Your task to perform on an android device: clear history in the chrome app Image 0: 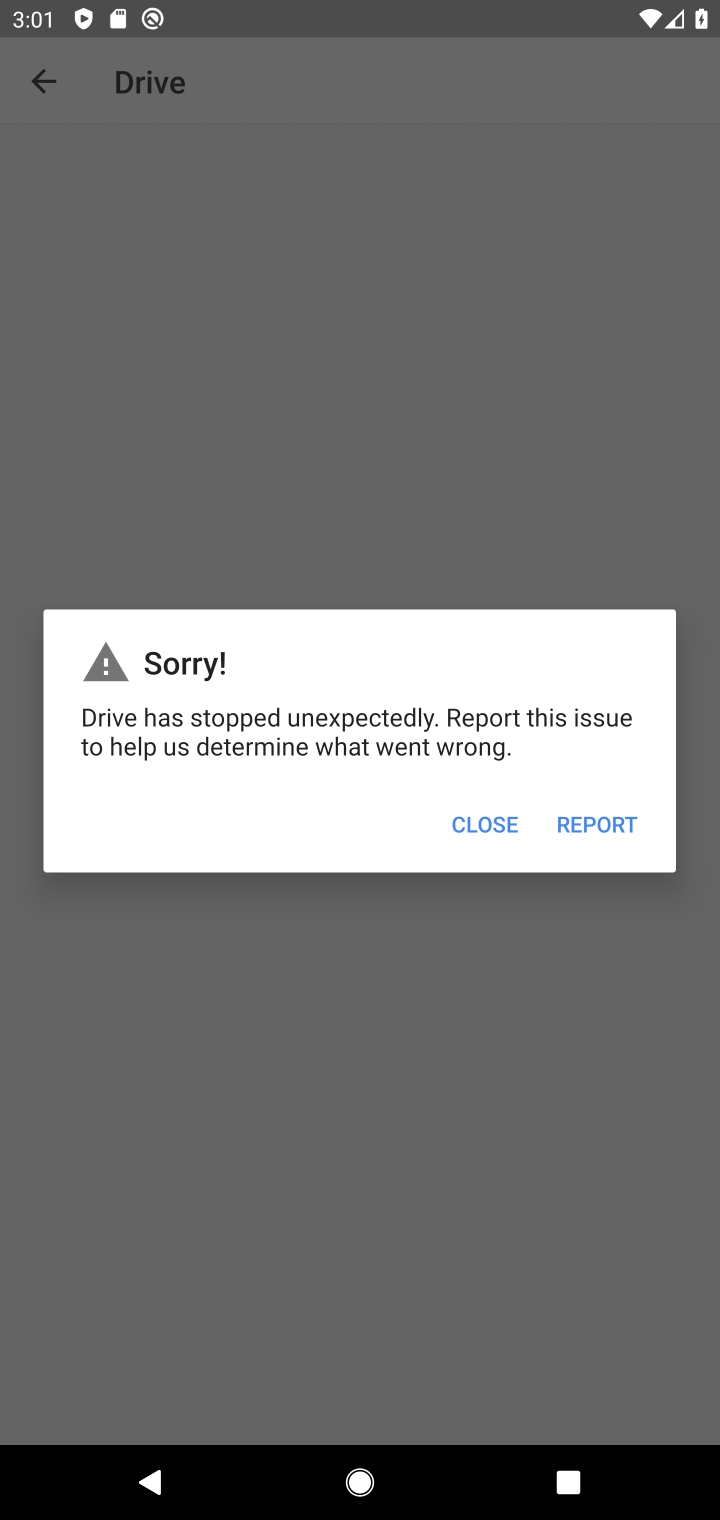
Step 0: click (497, 833)
Your task to perform on an android device: clear history in the chrome app Image 1: 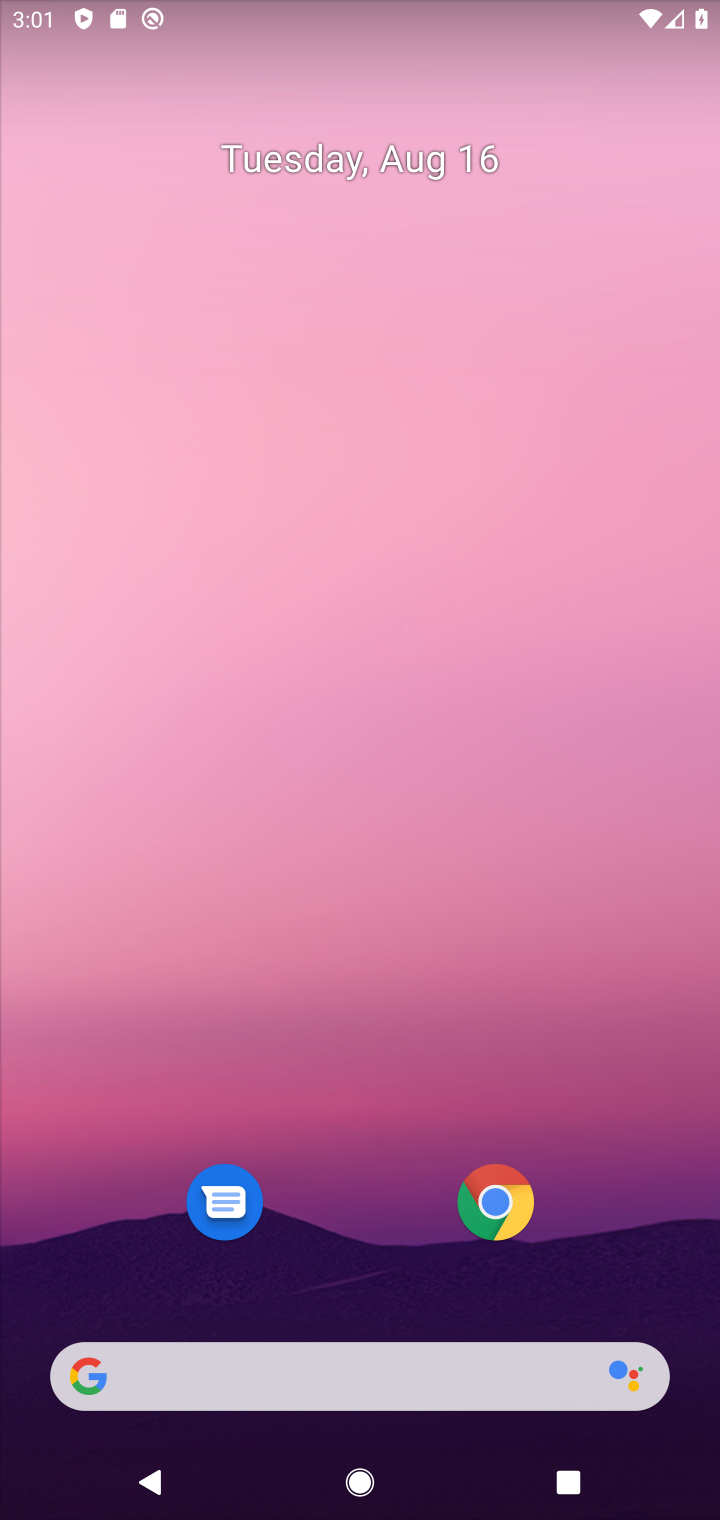
Step 1: drag from (377, 1148) to (366, 110)
Your task to perform on an android device: clear history in the chrome app Image 2: 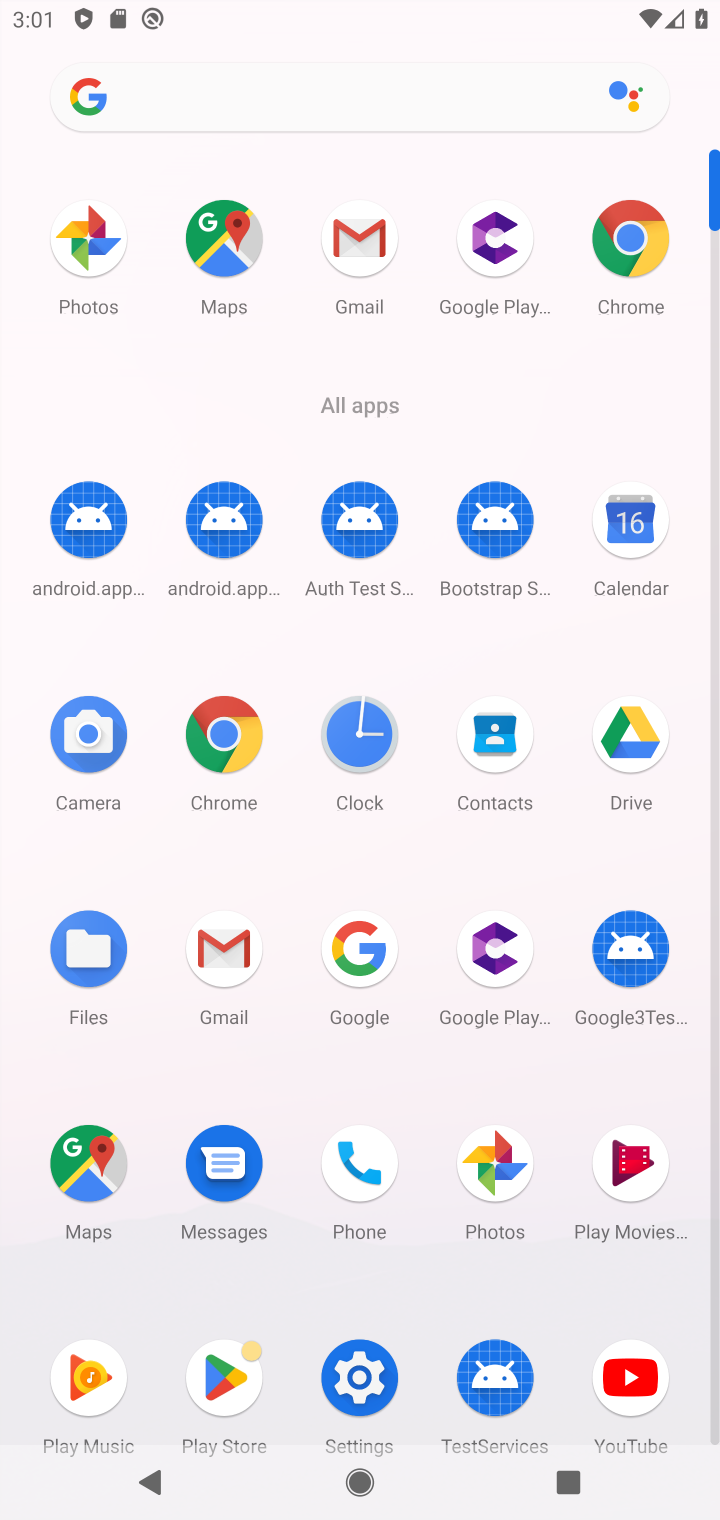
Step 2: click (235, 743)
Your task to perform on an android device: clear history in the chrome app Image 3: 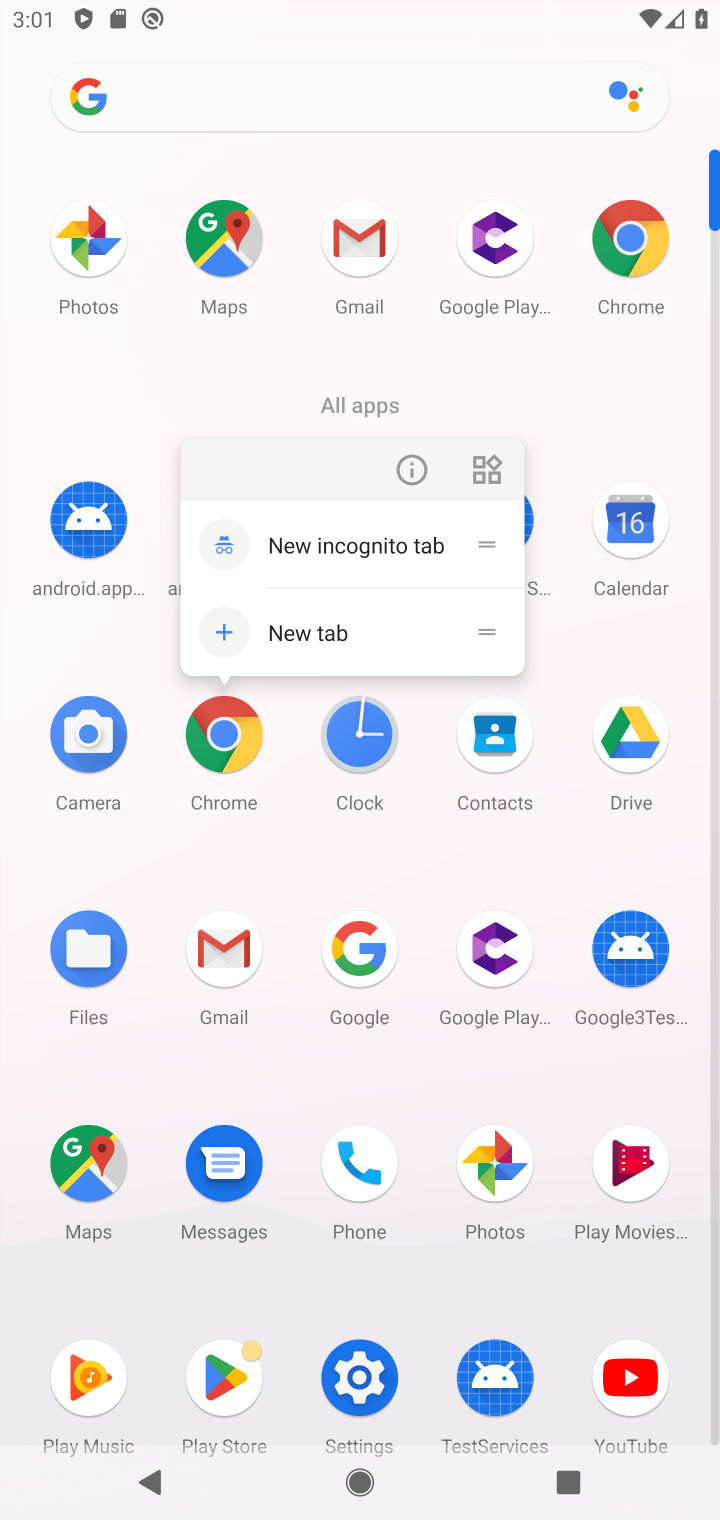
Step 3: click (224, 733)
Your task to perform on an android device: clear history in the chrome app Image 4: 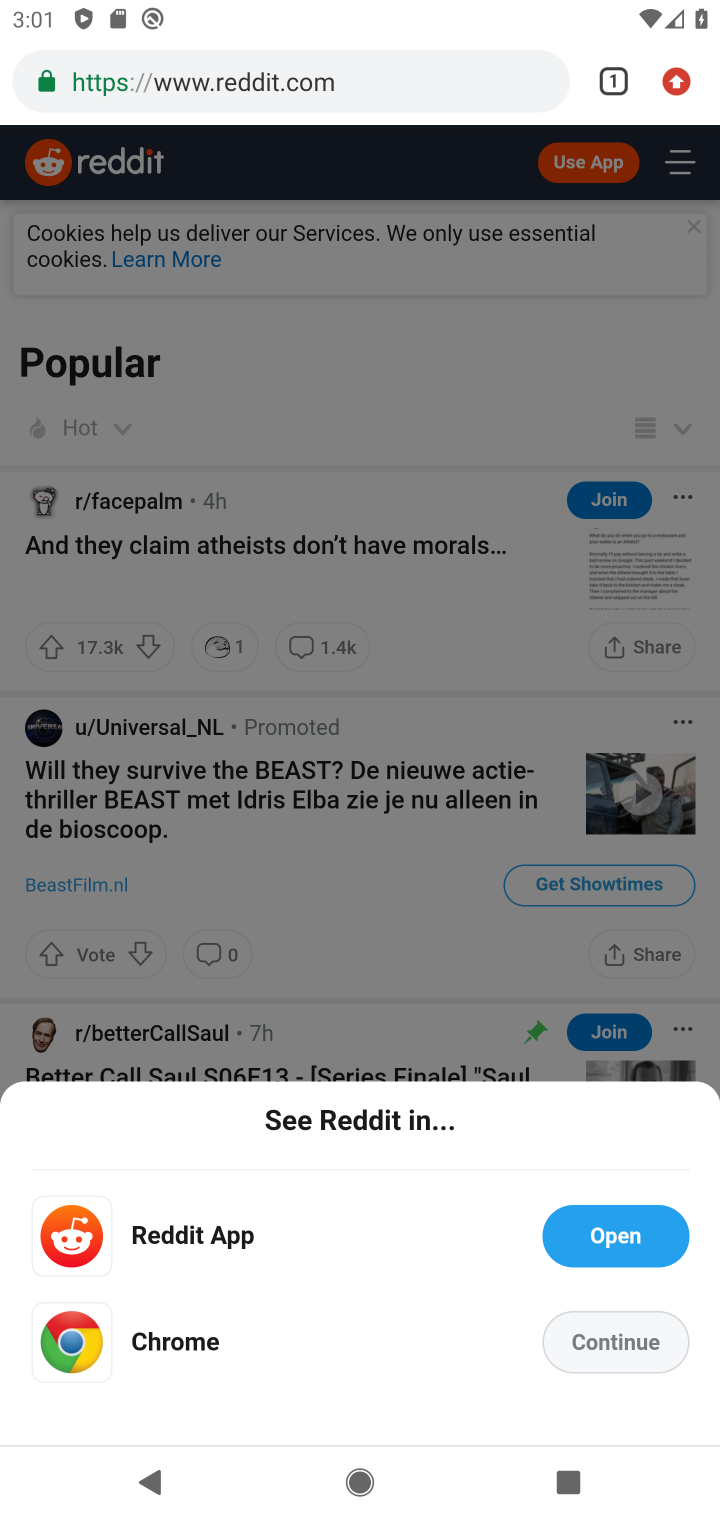
Step 4: click (582, 1334)
Your task to perform on an android device: clear history in the chrome app Image 5: 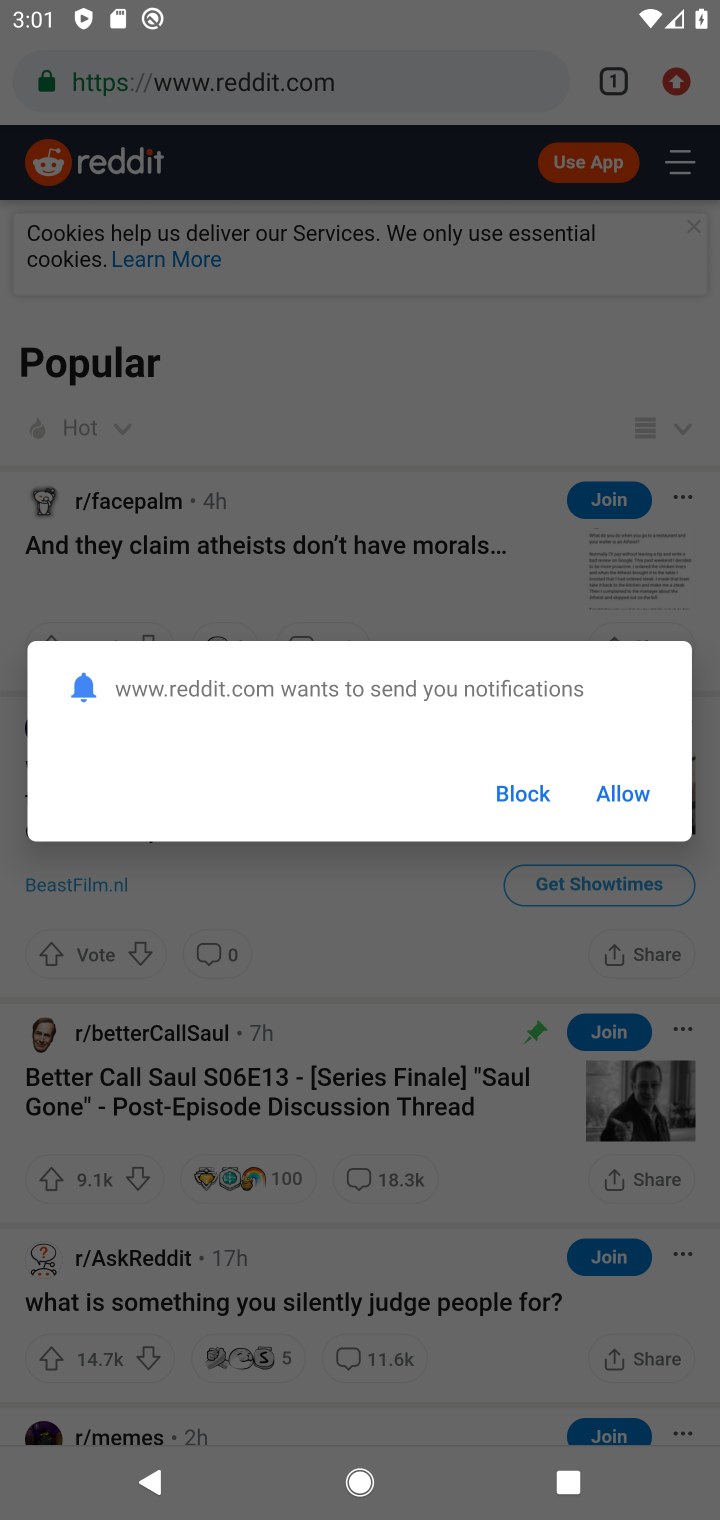
Step 5: click (519, 793)
Your task to perform on an android device: clear history in the chrome app Image 6: 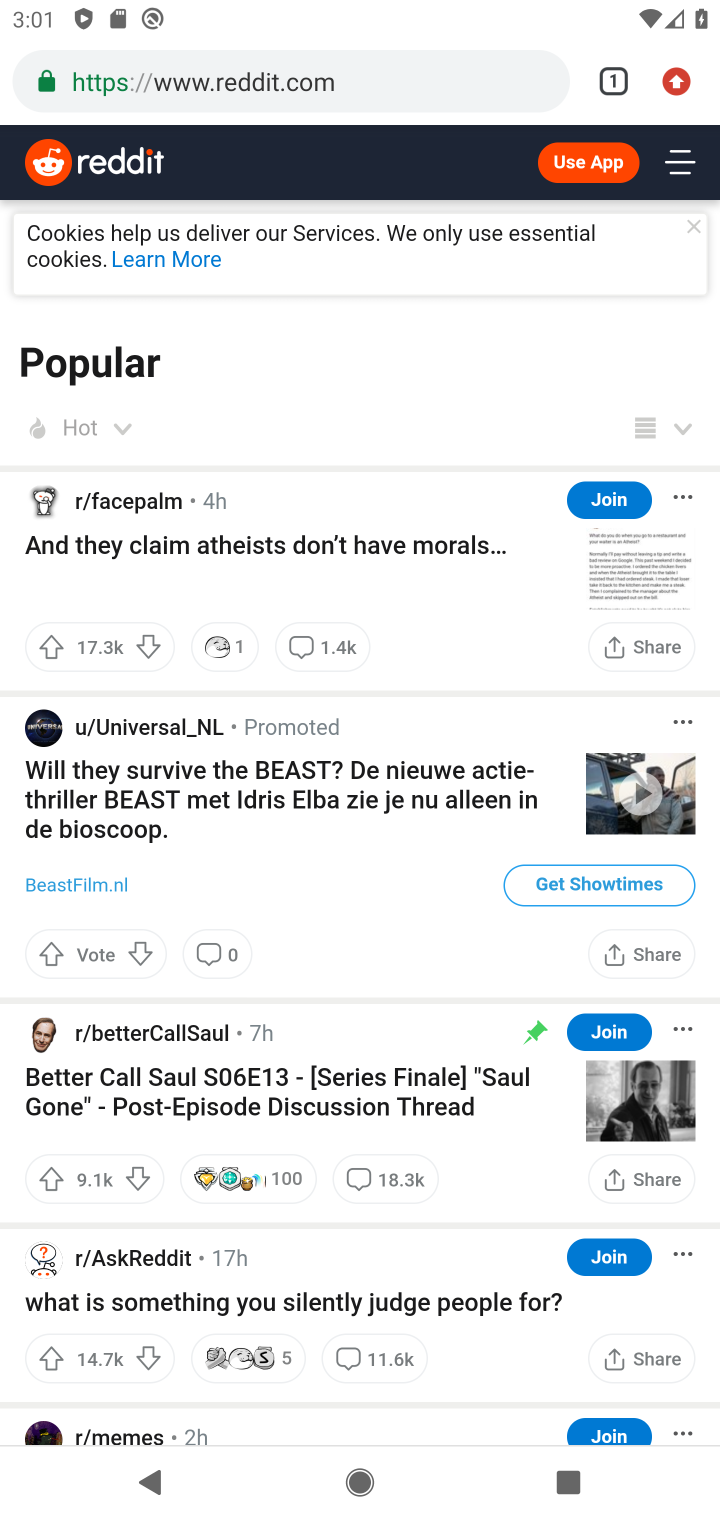
Step 6: click (689, 81)
Your task to perform on an android device: clear history in the chrome app Image 7: 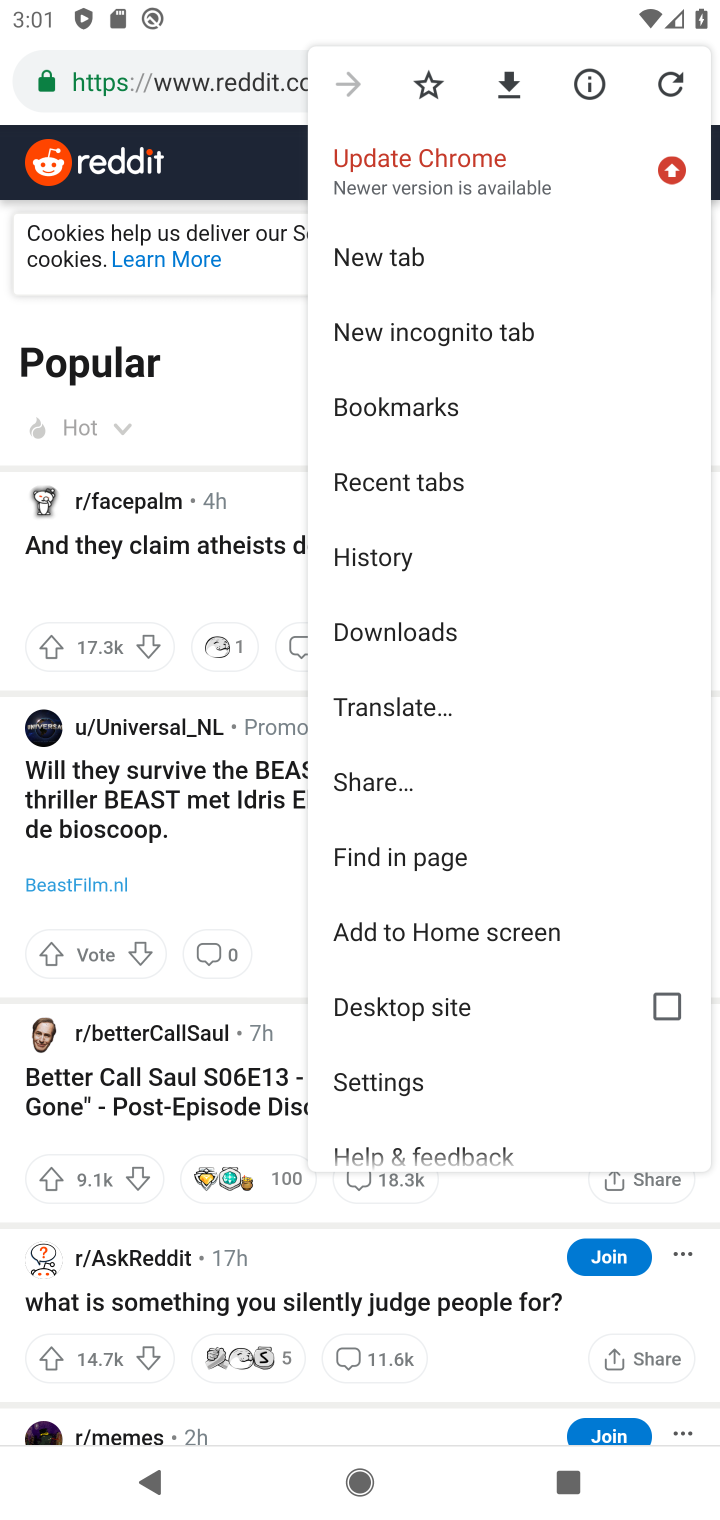
Step 7: click (446, 556)
Your task to perform on an android device: clear history in the chrome app Image 8: 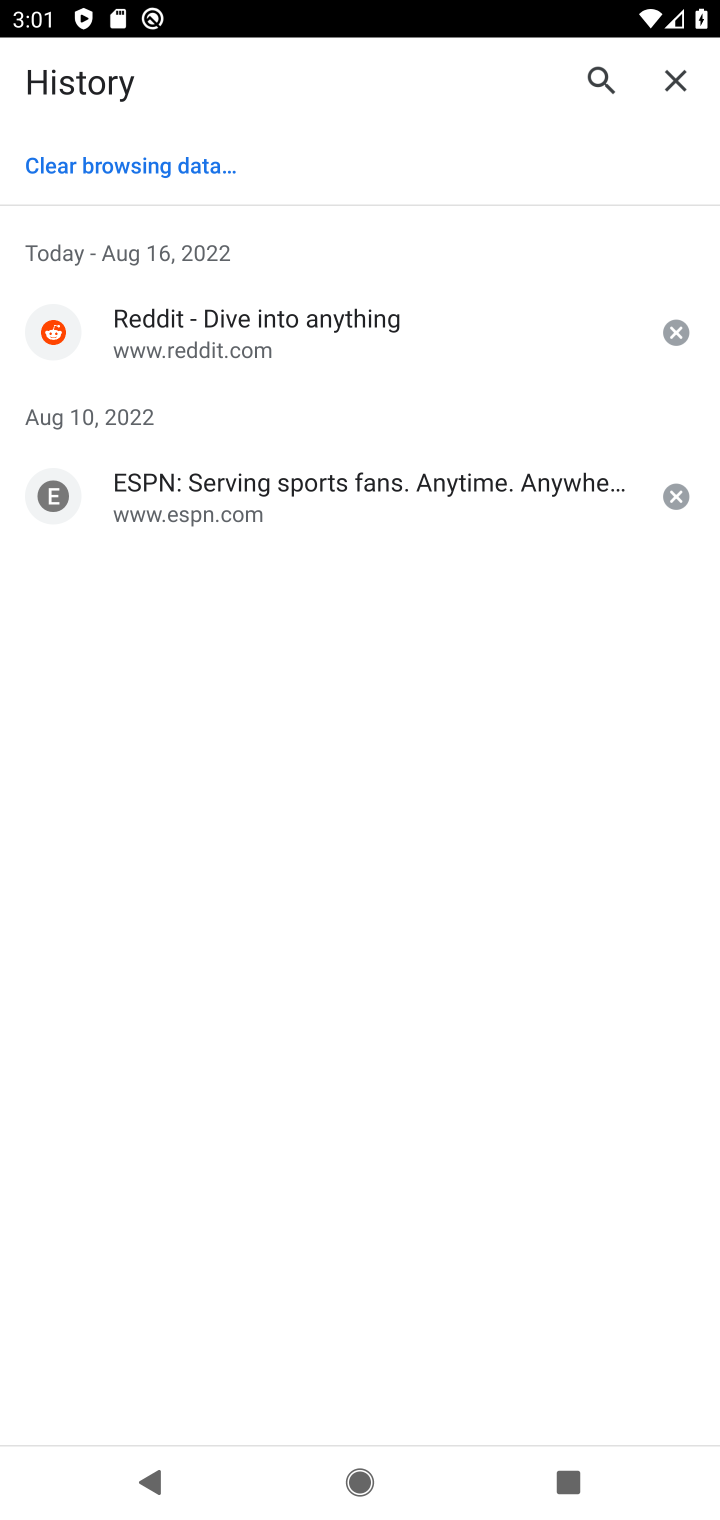
Step 8: click (199, 167)
Your task to perform on an android device: clear history in the chrome app Image 9: 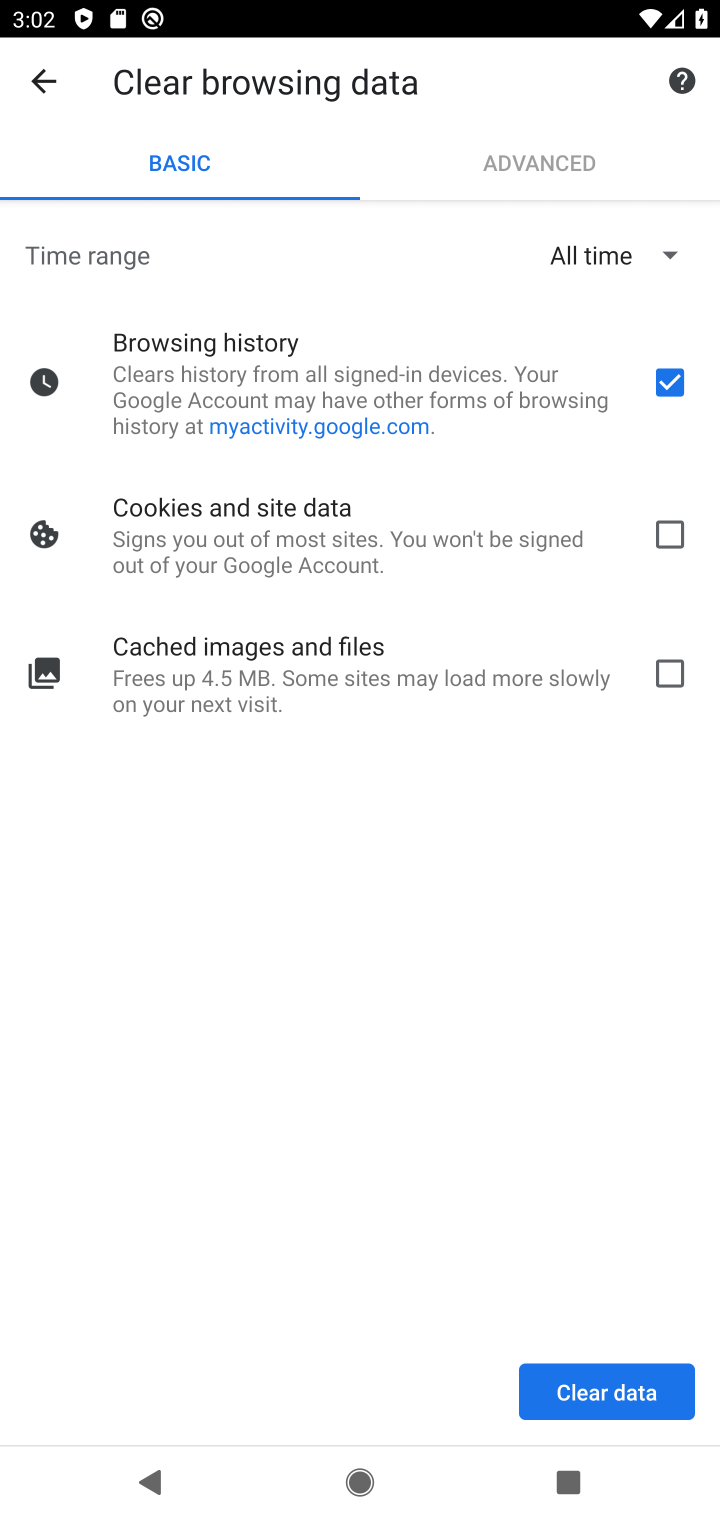
Step 9: click (643, 1392)
Your task to perform on an android device: clear history in the chrome app Image 10: 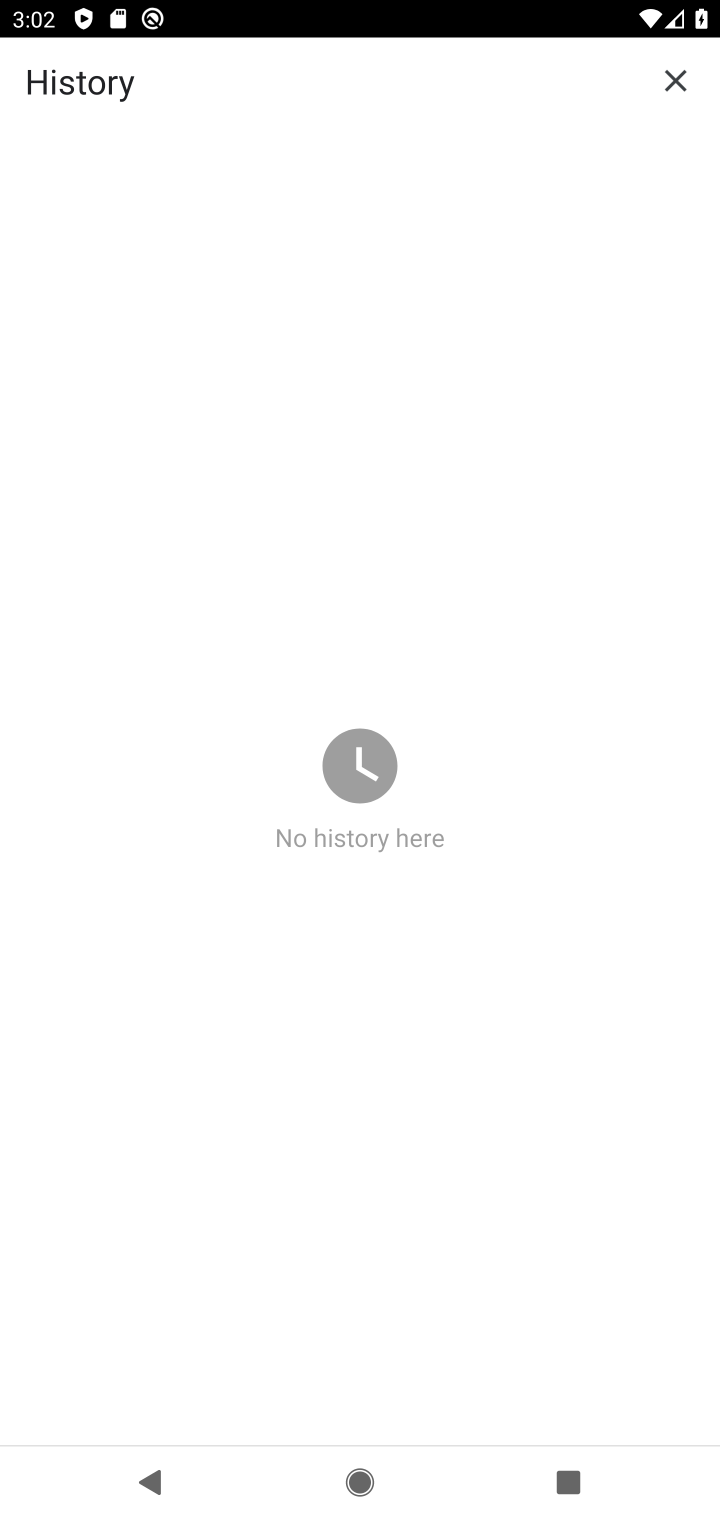
Step 10: task complete